Your task to perform on an android device: set the timer Image 0: 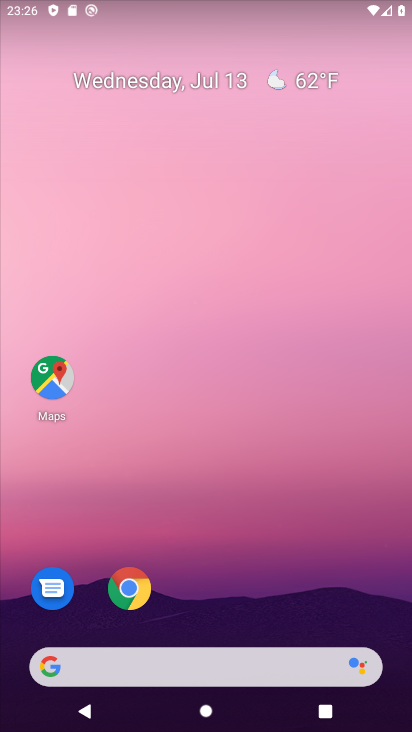
Step 0: drag from (198, 607) to (174, 194)
Your task to perform on an android device: set the timer Image 1: 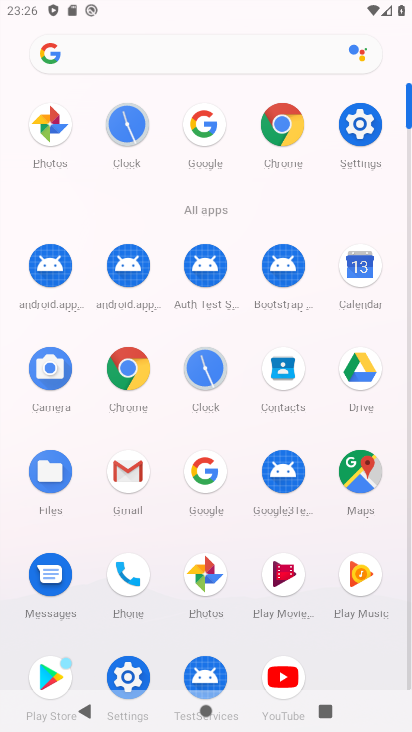
Step 1: click (220, 376)
Your task to perform on an android device: set the timer Image 2: 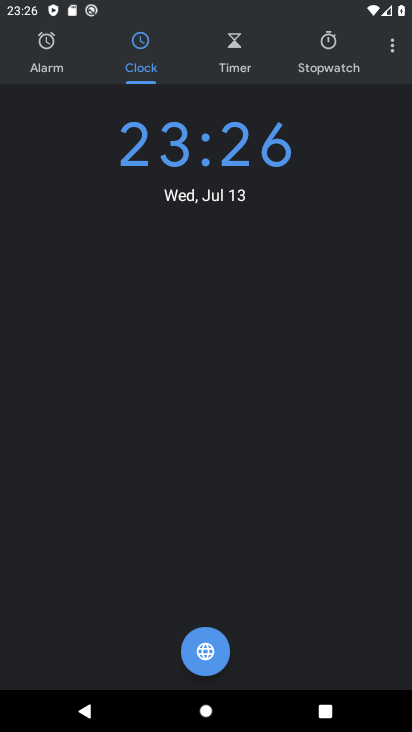
Step 2: click (228, 51)
Your task to perform on an android device: set the timer Image 3: 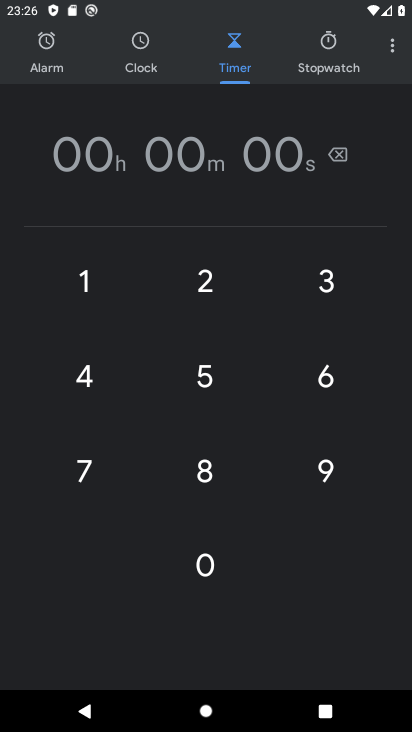
Step 3: click (208, 561)
Your task to perform on an android device: set the timer Image 4: 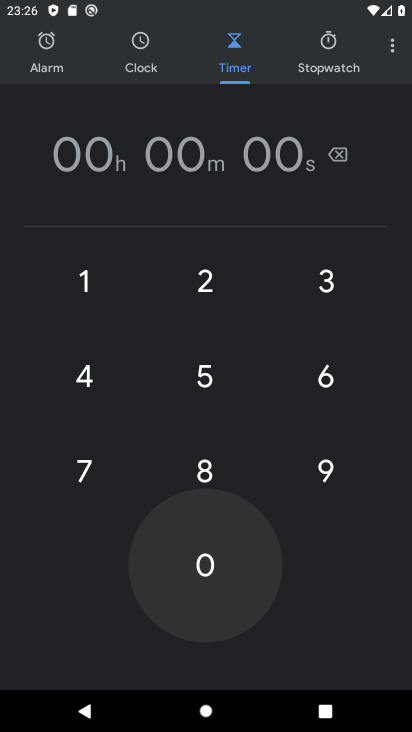
Step 4: click (191, 370)
Your task to perform on an android device: set the timer Image 5: 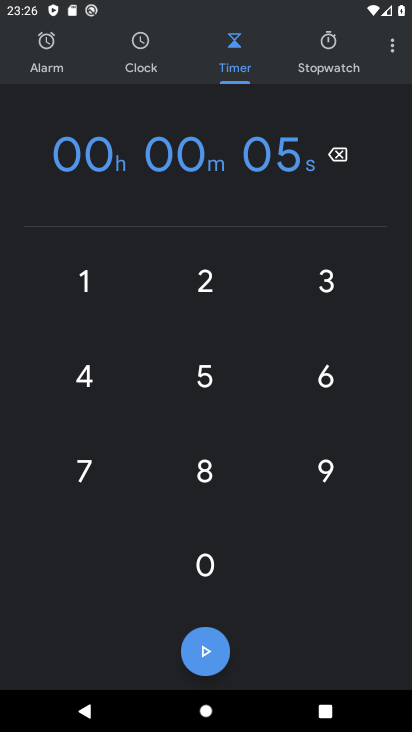
Step 5: click (213, 563)
Your task to perform on an android device: set the timer Image 6: 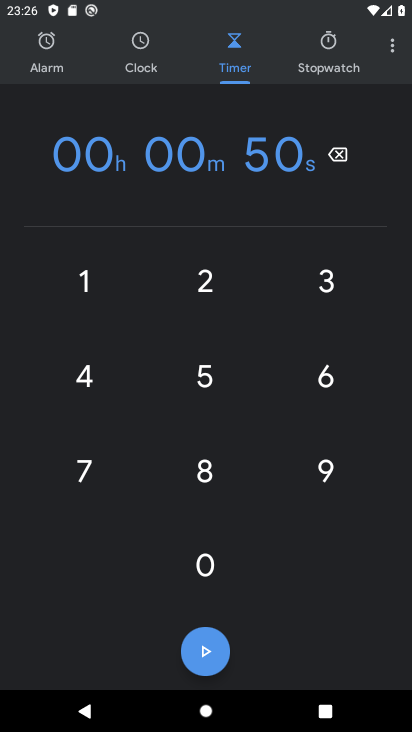
Step 6: click (213, 563)
Your task to perform on an android device: set the timer Image 7: 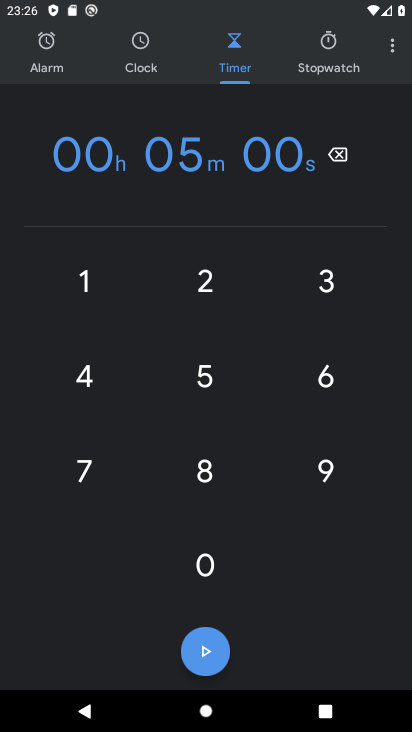
Step 7: click (199, 647)
Your task to perform on an android device: set the timer Image 8: 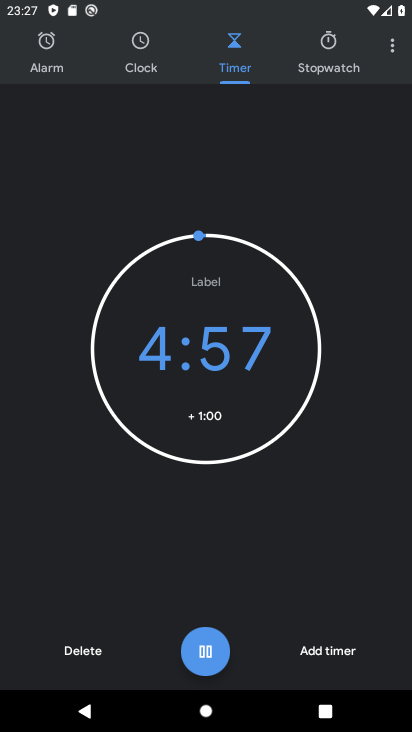
Step 8: task complete